Your task to perform on an android device: turn off wifi Image 0: 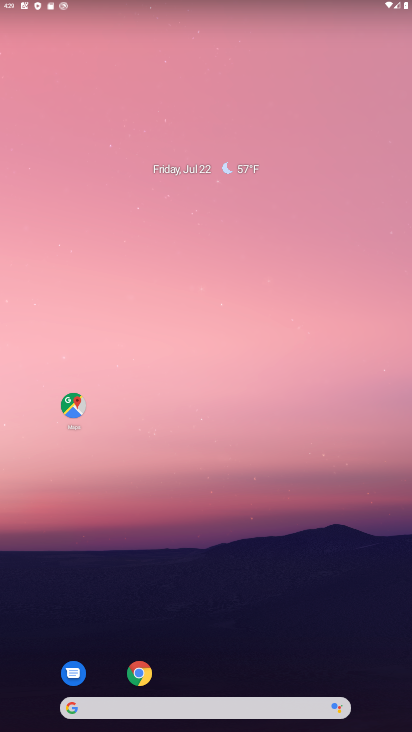
Step 0: drag from (274, 6) to (268, 424)
Your task to perform on an android device: turn off wifi Image 1: 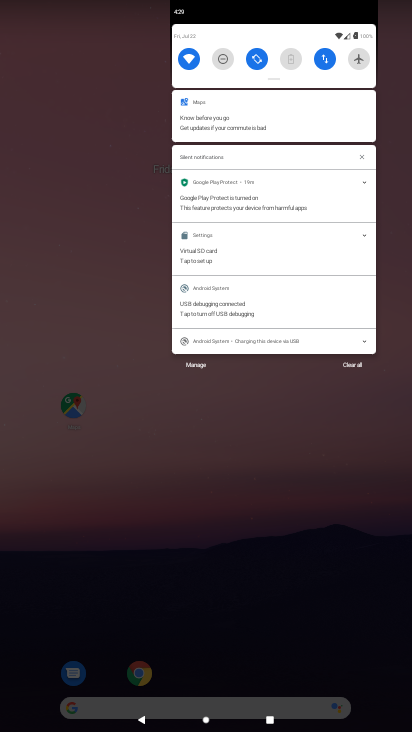
Step 1: click (190, 70)
Your task to perform on an android device: turn off wifi Image 2: 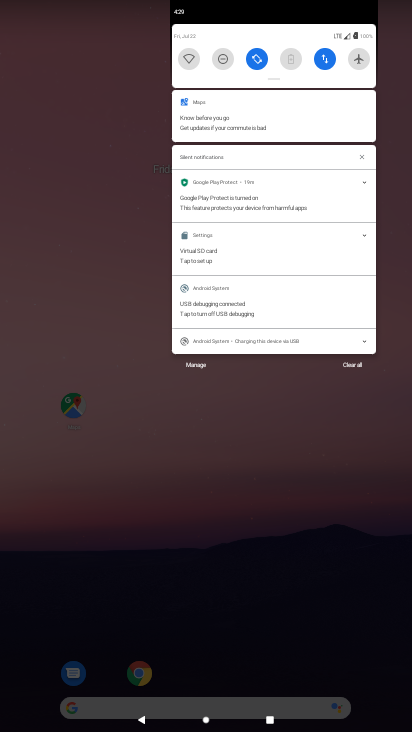
Step 2: task complete